Your task to perform on an android device: Search for vegetarian restaurants on Maps Image 0: 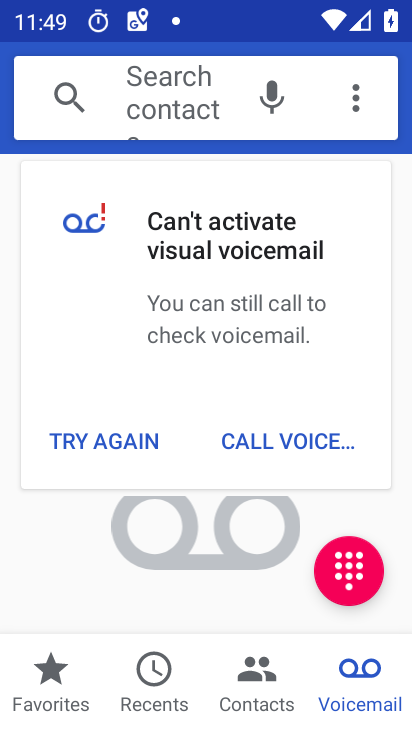
Step 0: press home button
Your task to perform on an android device: Search for vegetarian restaurants on Maps Image 1: 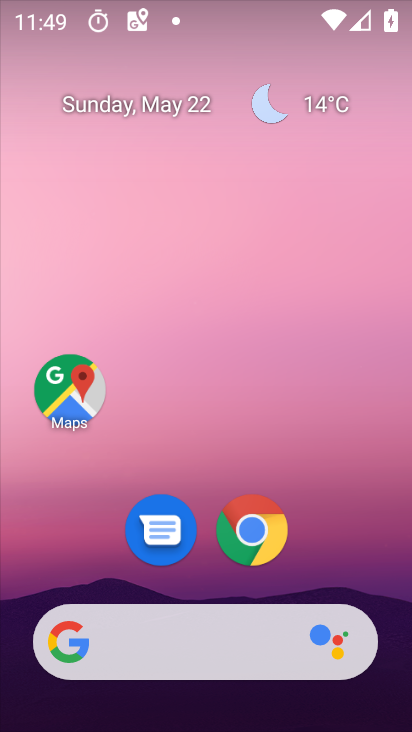
Step 1: drag from (405, 593) to (401, 201)
Your task to perform on an android device: Search for vegetarian restaurants on Maps Image 2: 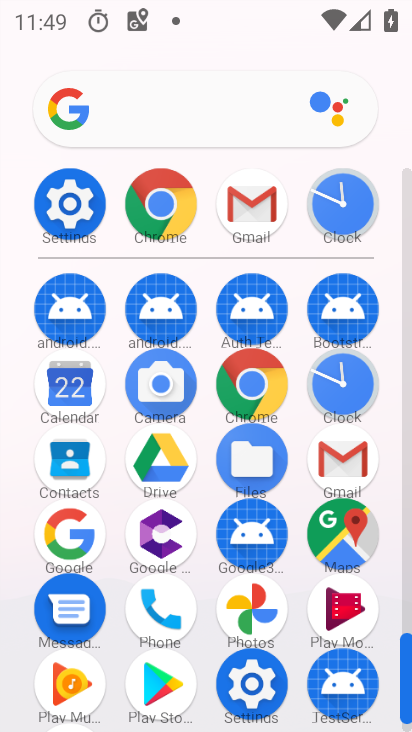
Step 2: click (344, 528)
Your task to perform on an android device: Search for vegetarian restaurants on Maps Image 3: 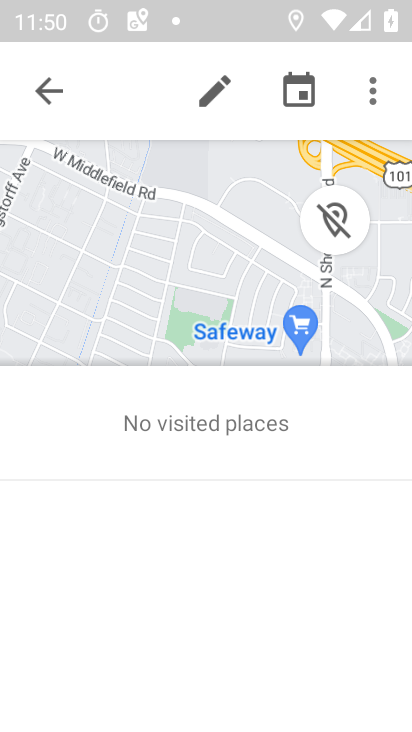
Step 3: click (53, 93)
Your task to perform on an android device: Search for vegetarian restaurants on Maps Image 4: 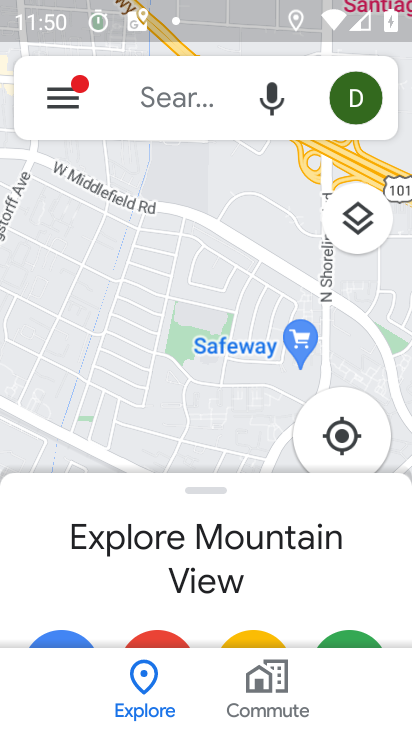
Step 4: click (178, 97)
Your task to perform on an android device: Search for vegetarian restaurants on Maps Image 5: 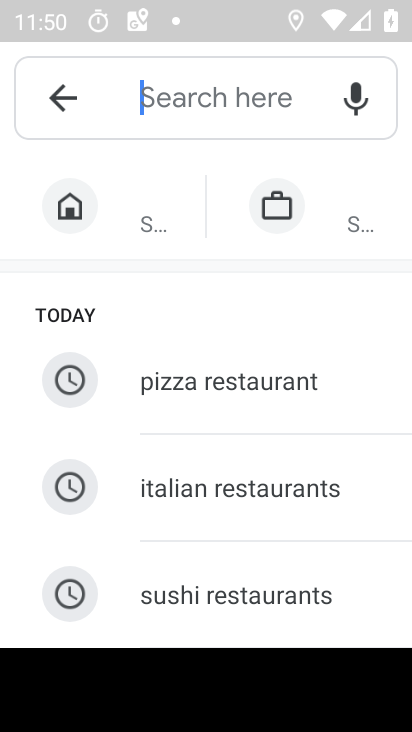
Step 5: type "vegetarian restaurants"
Your task to perform on an android device: Search for vegetarian restaurants on Maps Image 6: 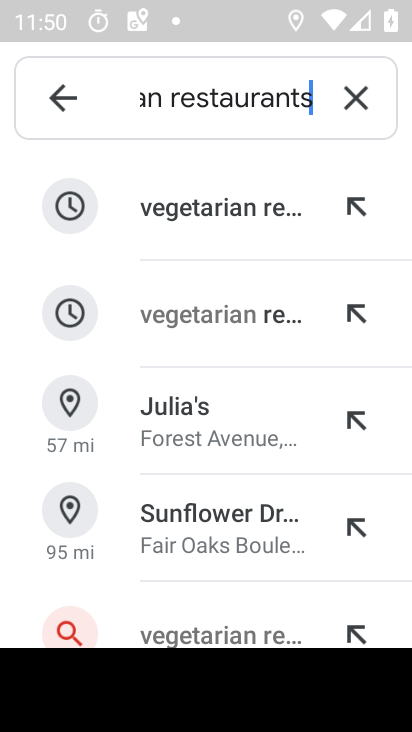
Step 6: click (222, 199)
Your task to perform on an android device: Search for vegetarian restaurants on Maps Image 7: 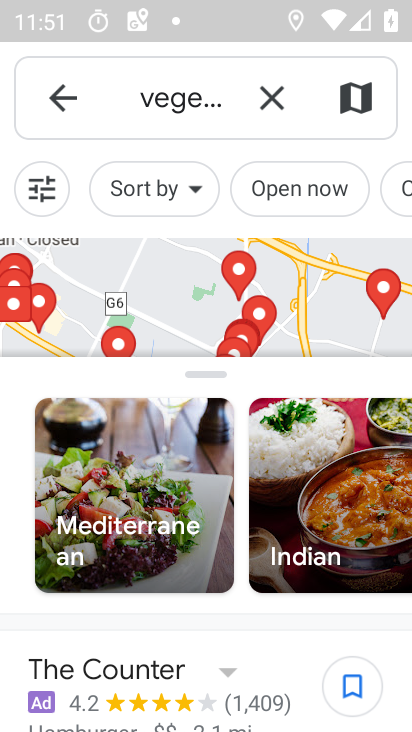
Step 7: task complete